Your task to perform on an android device: set the timer Image 0: 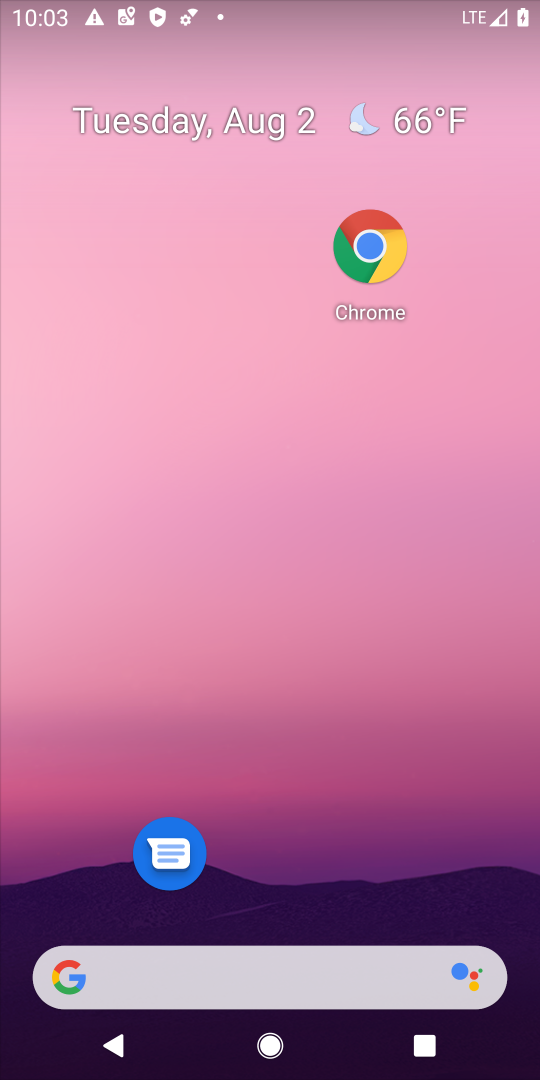
Step 0: drag from (255, 971) to (195, 107)
Your task to perform on an android device: set the timer Image 1: 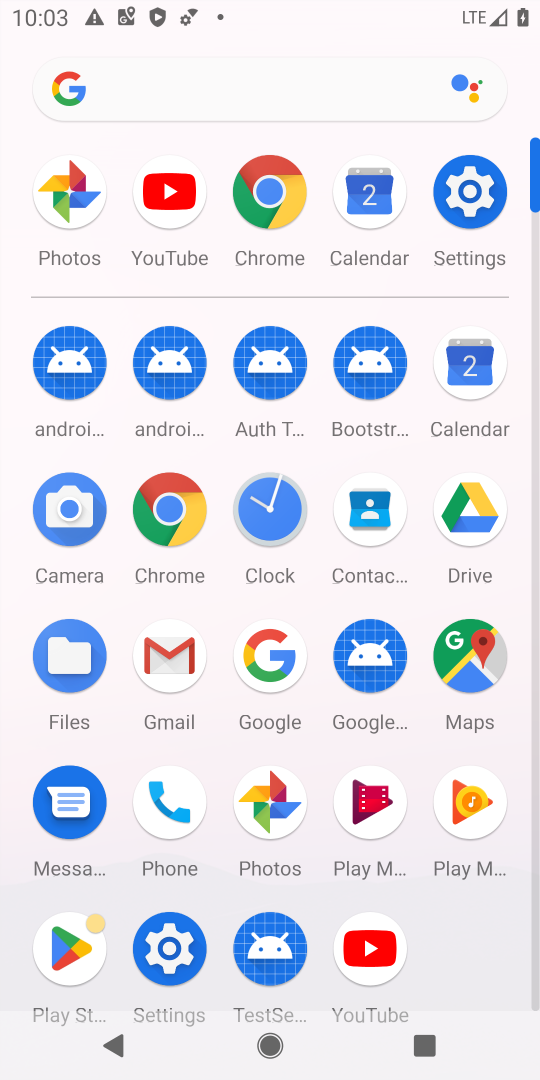
Step 1: click (255, 535)
Your task to perform on an android device: set the timer Image 2: 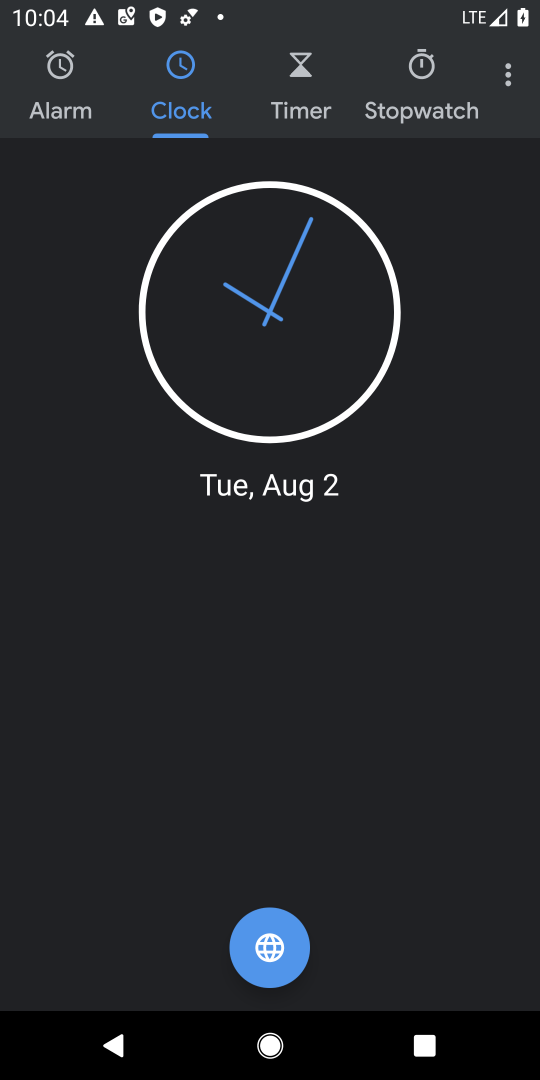
Step 2: click (322, 113)
Your task to perform on an android device: set the timer Image 3: 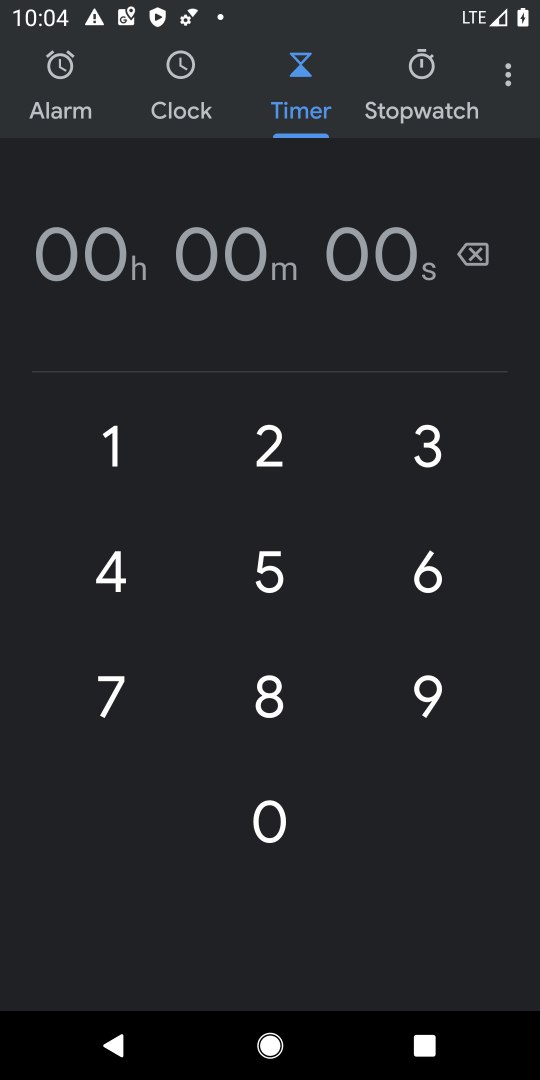
Step 3: click (278, 400)
Your task to perform on an android device: set the timer Image 4: 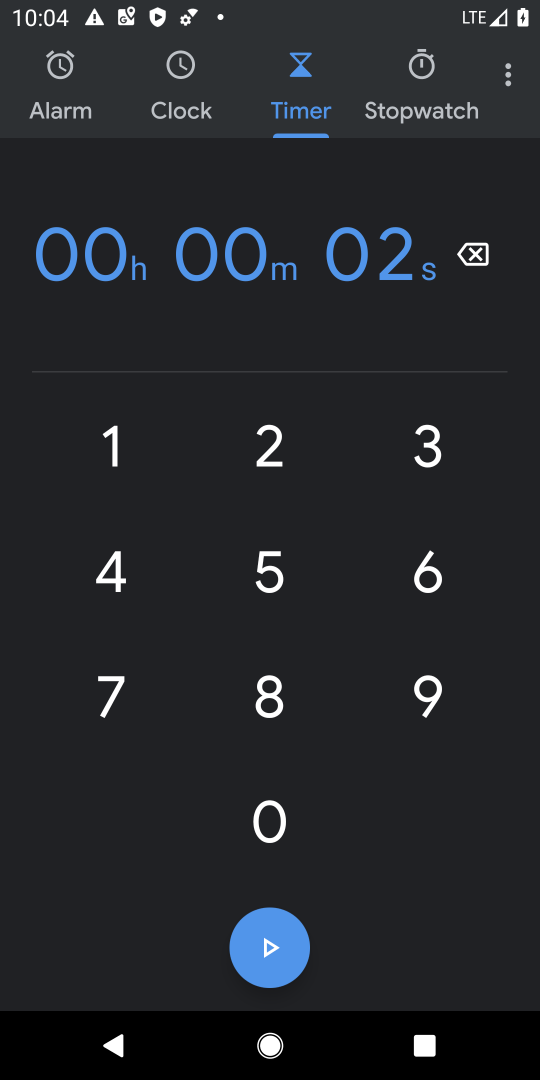
Step 4: click (265, 945)
Your task to perform on an android device: set the timer Image 5: 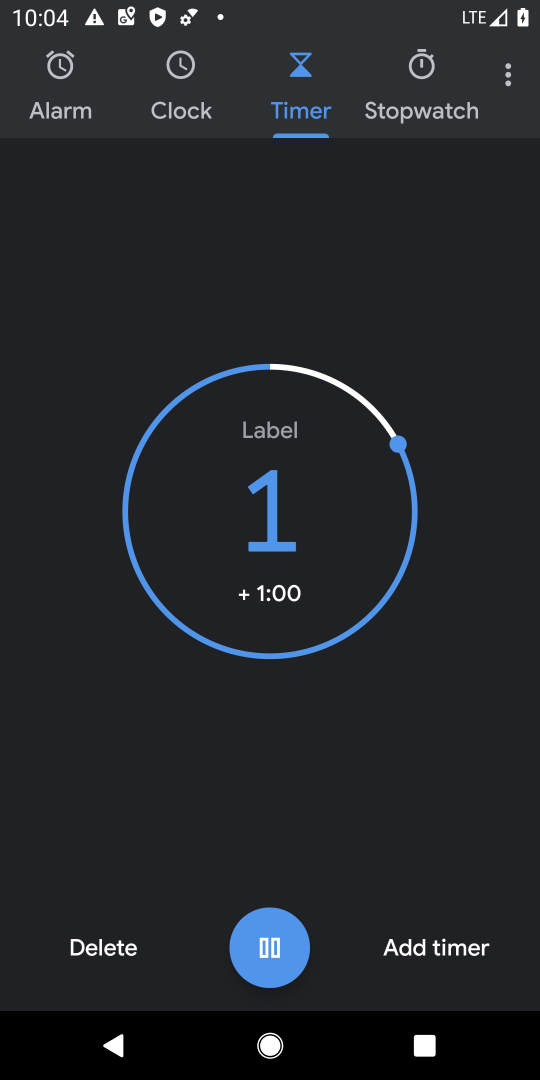
Step 5: task complete